Your task to perform on an android device: Open the Play Movies app and select the watchlist tab. Image 0: 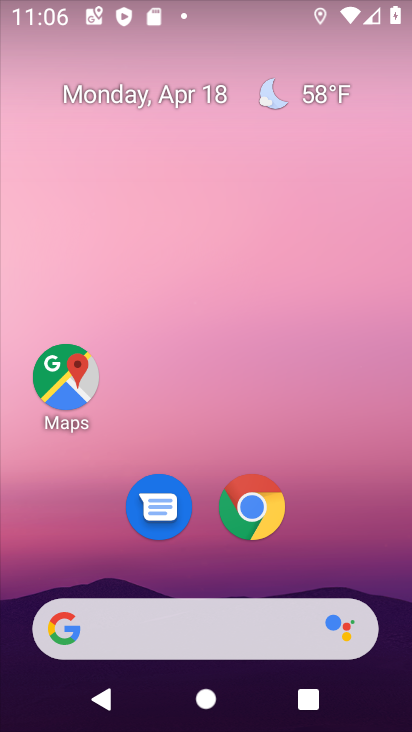
Step 0: click (350, 7)
Your task to perform on an android device: Open the Play Movies app and select the watchlist tab. Image 1: 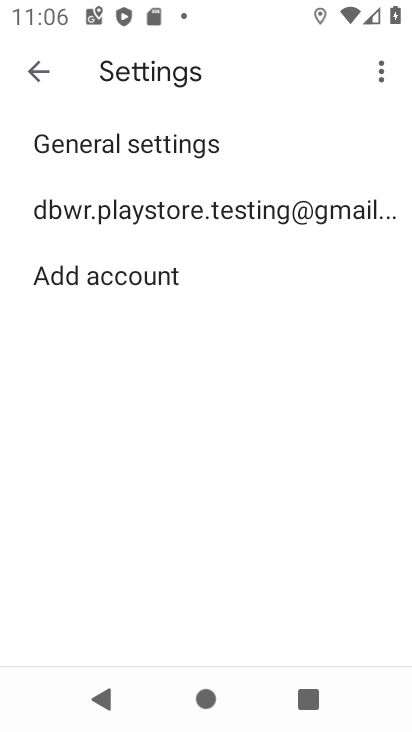
Step 1: press home button
Your task to perform on an android device: Open the Play Movies app and select the watchlist tab. Image 2: 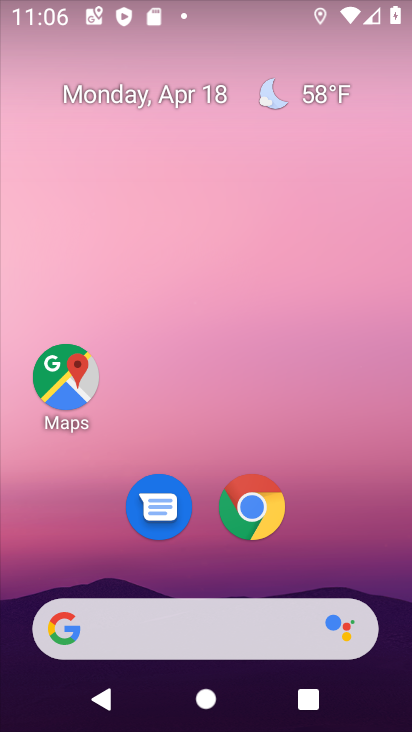
Step 2: drag from (209, 587) to (294, 129)
Your task to perform on an android device: Open the Play Movies app and select the watchlist tab. Image 3: 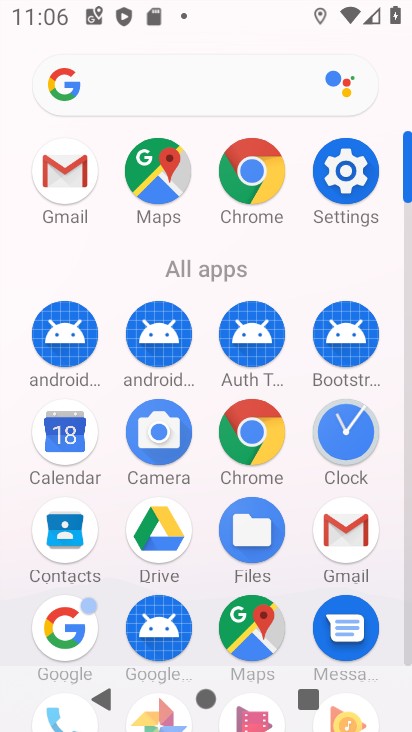
Step 3: drag from (310, 594) to (365, 165)
Your task to perform on an android device: Open the Play Movies app and select the watchlist tab. Image 4: 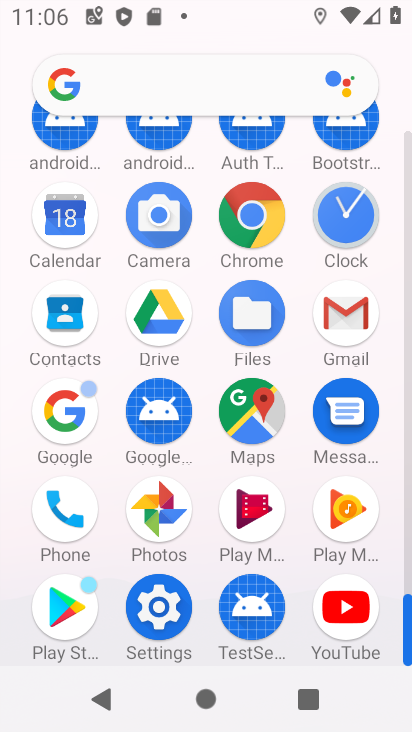
Step 4: click (248, 525)
Your task to perform on an android device: Open the Play Movies app and select the watchlist tab. Image 5: 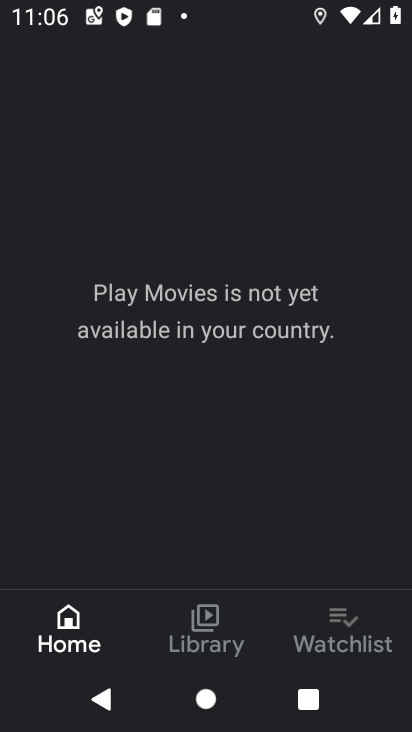
Step 5: click (350, 621)
Your task to perform on an android device: Open the Play Movies app and select the watchlist tab. Image 6: 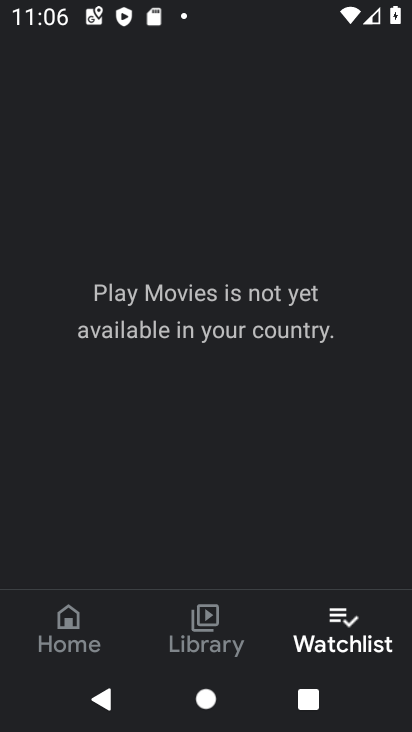
Step 6: task complete